Your task to perform on an android device: Play the latest video from the Huffington Post Image 0: 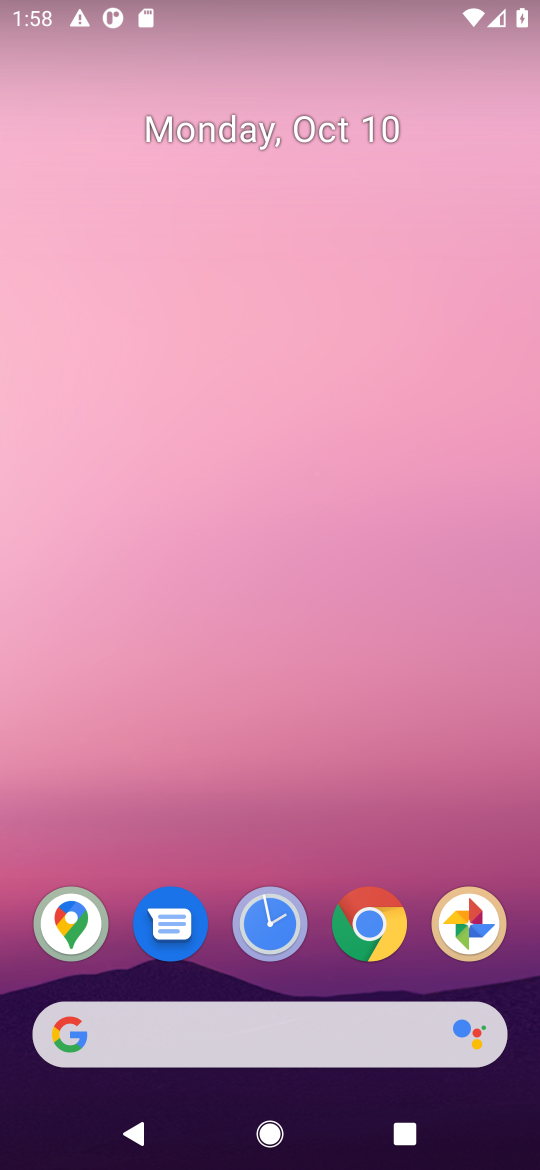
Step 0: drag from (296, 784) to (347, 4)
Your task to perform on an android device: Play the latest video from the Huffington Post Image 1: 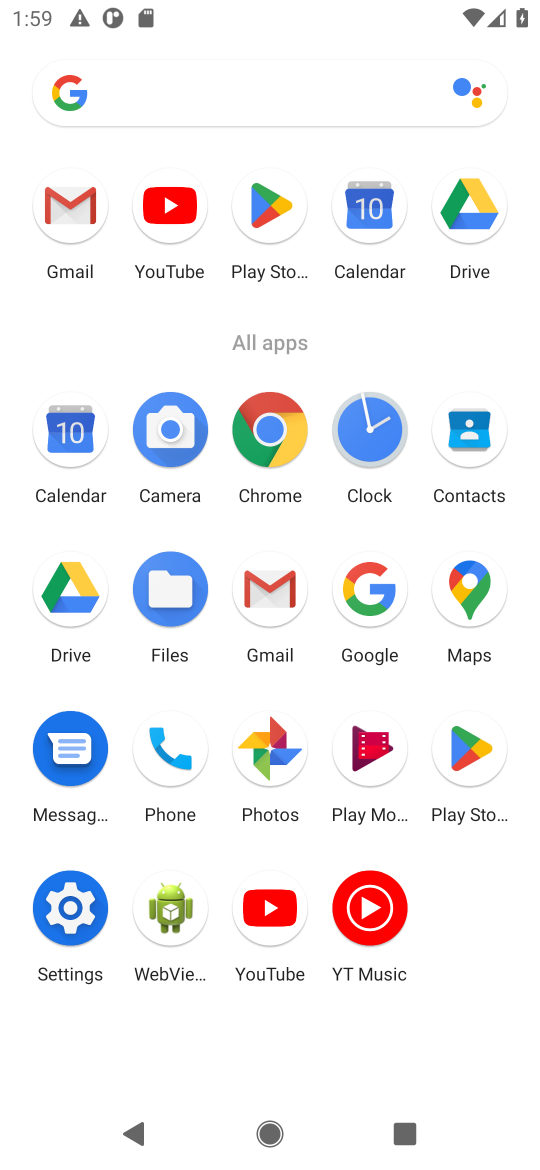
Step 1: click (259, 430)
Your task to perform on an android device: Play the latest video from the Huffington Post Image 2: 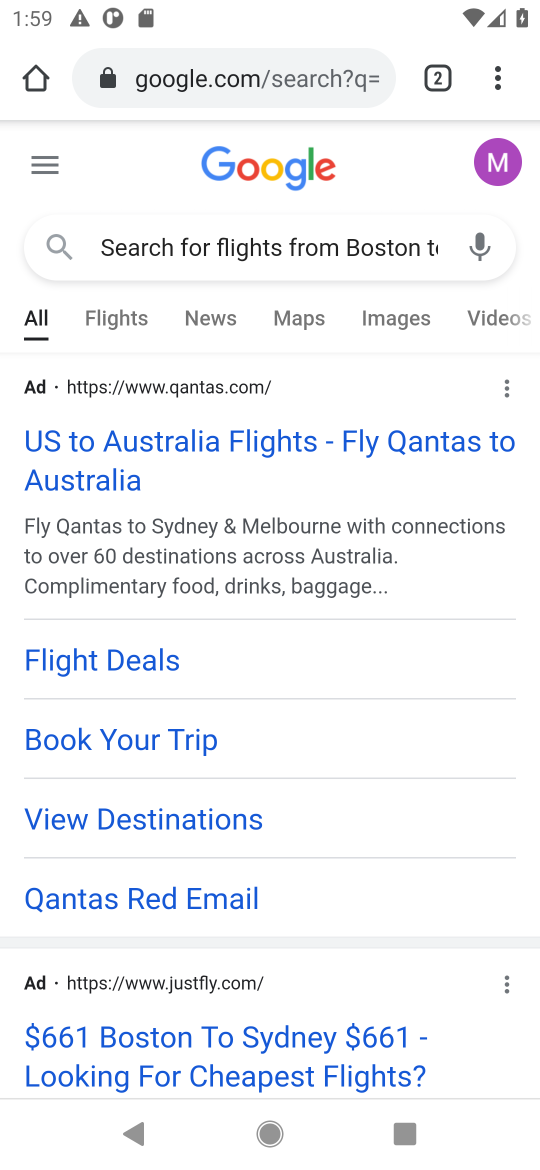
Step 2: click (259, 74)
Your task to perform on an android device: Play the latest video from the Huffington Post Image 3: 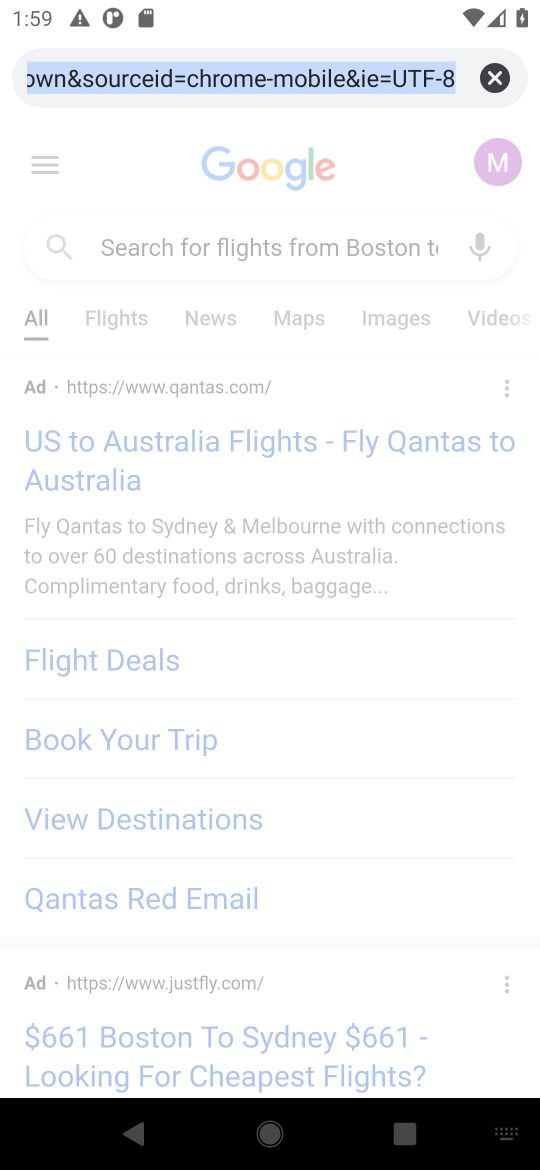
Step 3: click (487, 73)
Your task to perform on an android device: Play the latest video from the Huffington Post Image 4: 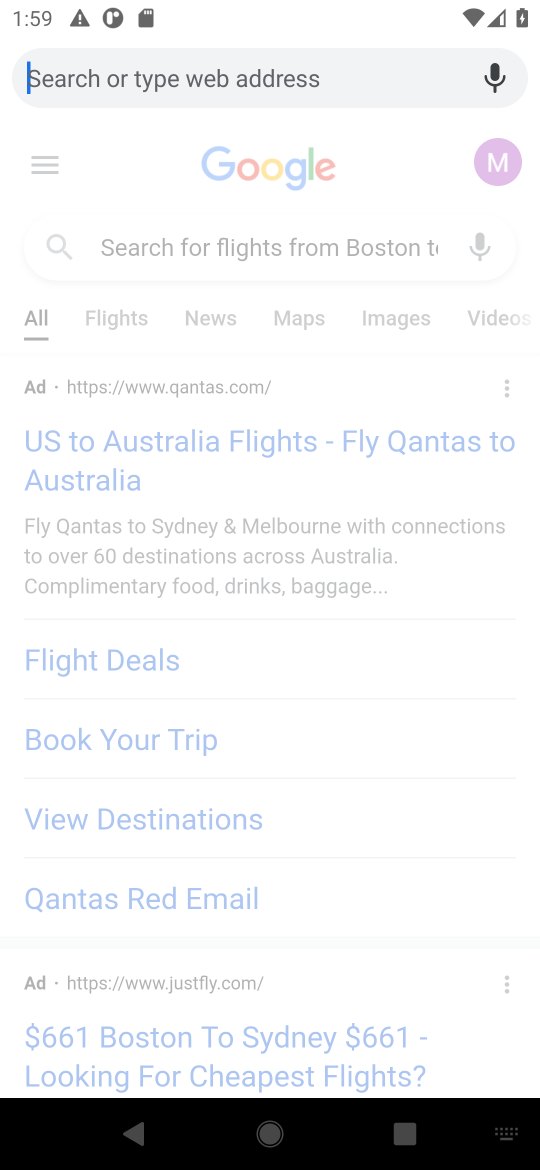
Step 4: type "Play the latest video from the Huffington Post"
Your task to perform on an android device: Play the latest video from the Huffington Post Image 5: 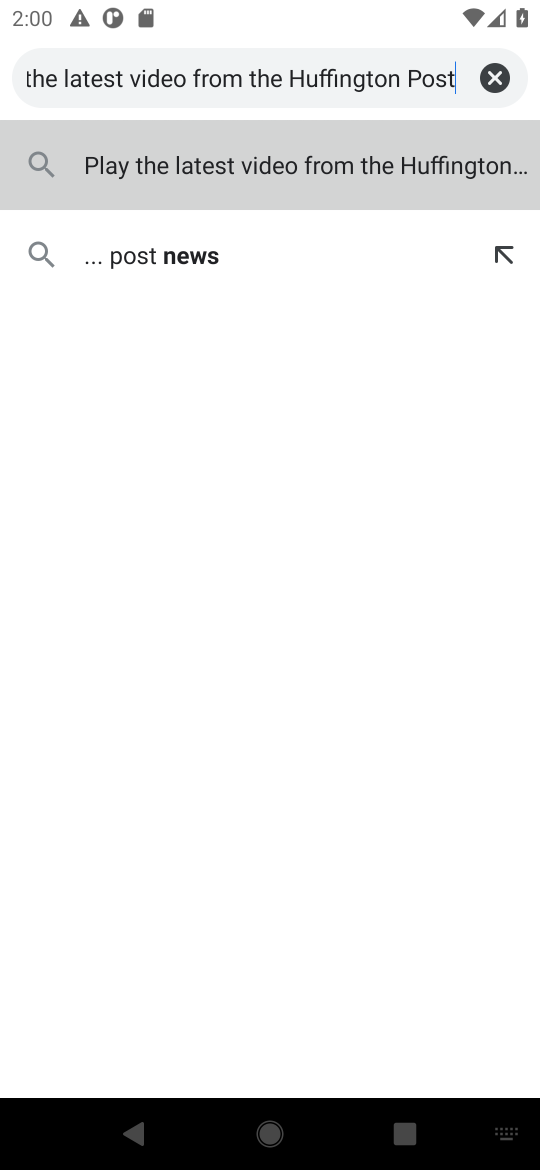
Step 5: click (312, 149)
Your task to perform on an android device: Play the latest video from the Huffington Post Image 6: 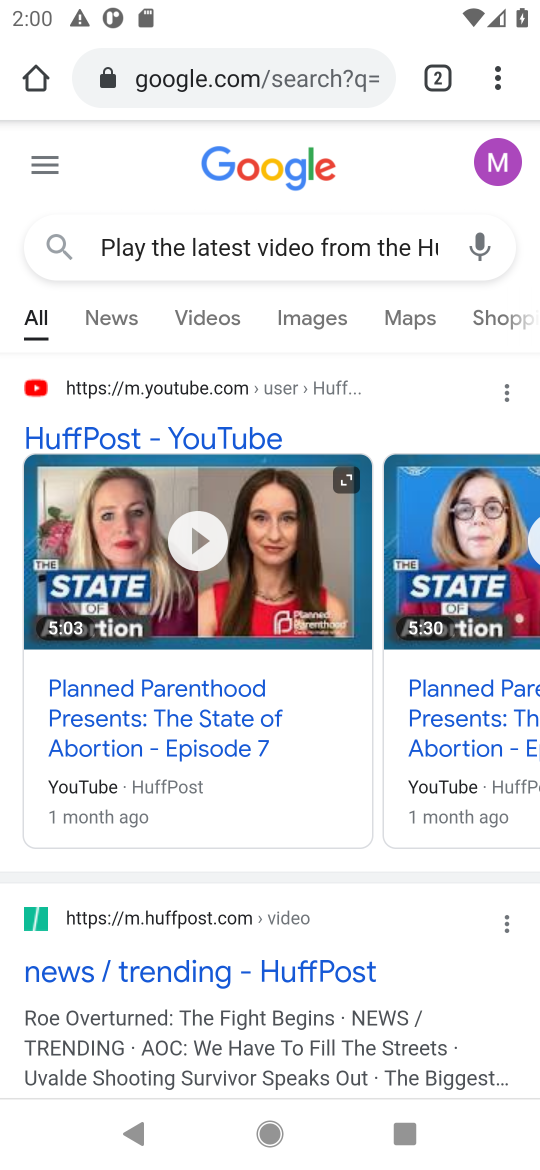
Step 6: task complete